Your task to perform on an android device: Open the contacts Image 0: 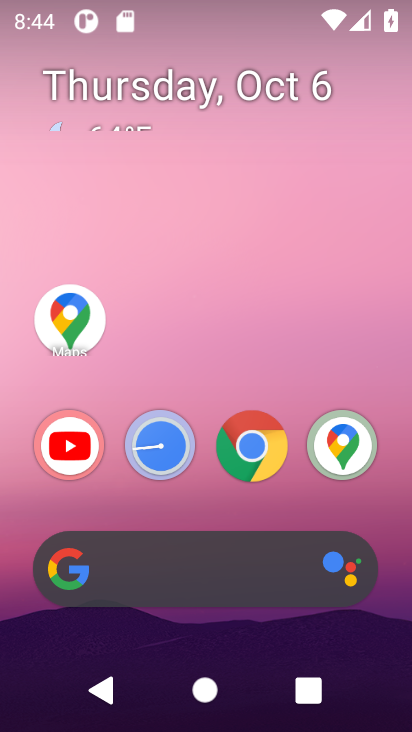
Step 0: click (203, 494)
Your task to perform on an android device: Open the contacts Image 1: 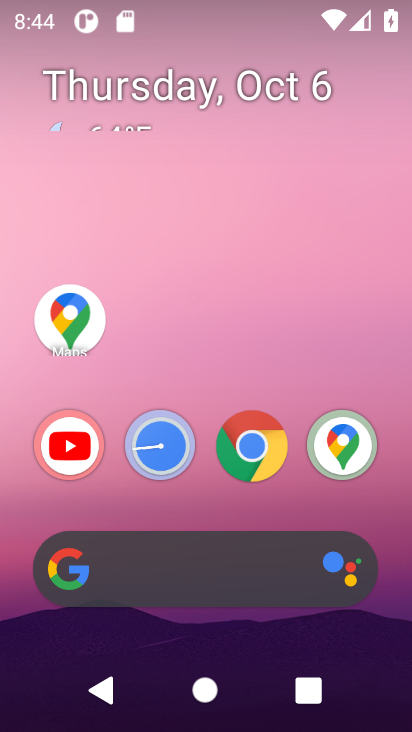
Step 1: drag from (203, 509) to (201, 3)
Your task to perform on an android device: Open the contacts Image 2: 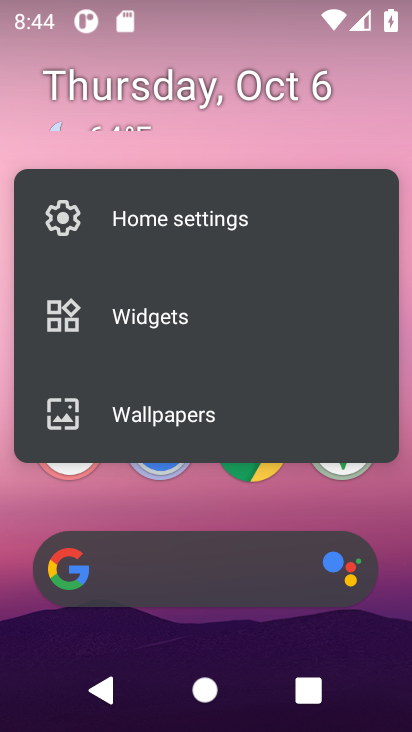
Step 2: click (223, 131)
Your task to perform on an android device: Open the contacts Image 3: 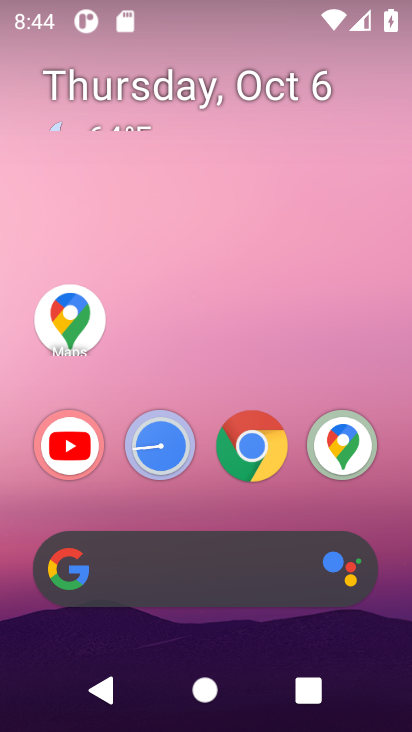
Step 3: drag from (197, 511) to (182, 70)
Your task to perform on an android device: Open the contacts Image 4: 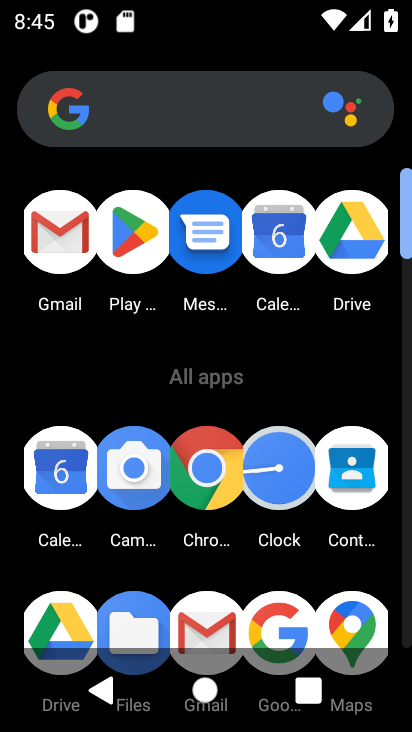
Step 4: click (354, 489)
Your task to perform on an android device: Open the contacts Image 5: 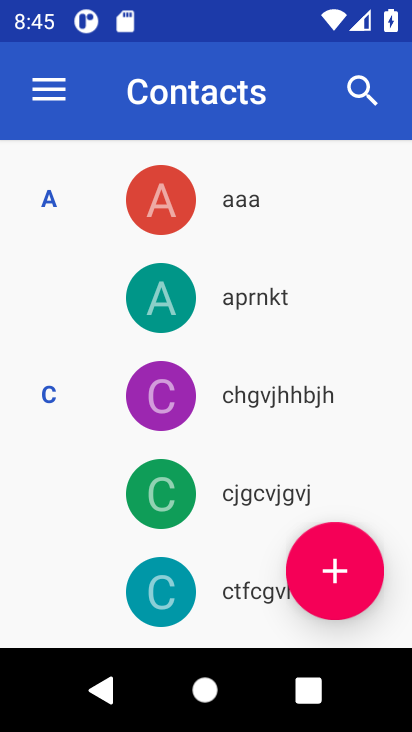
Step 5: click (315, 390)
Your task to perform on an android device: Open the contacts Image 6: 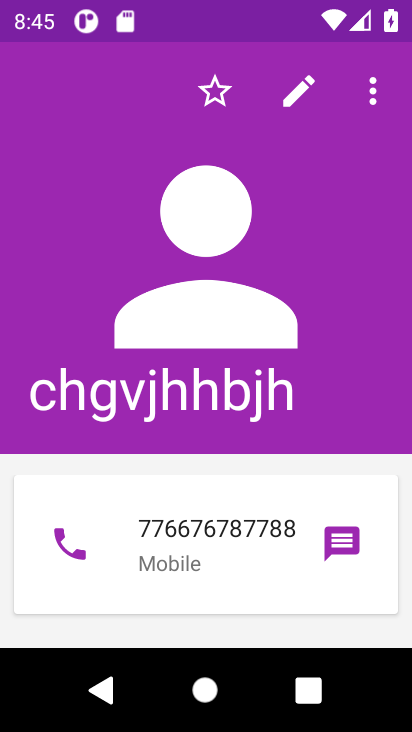
Step 6: task complete